Your task to perform on an android device: Add "razer blade" to the cart on newegg.com Image 0: 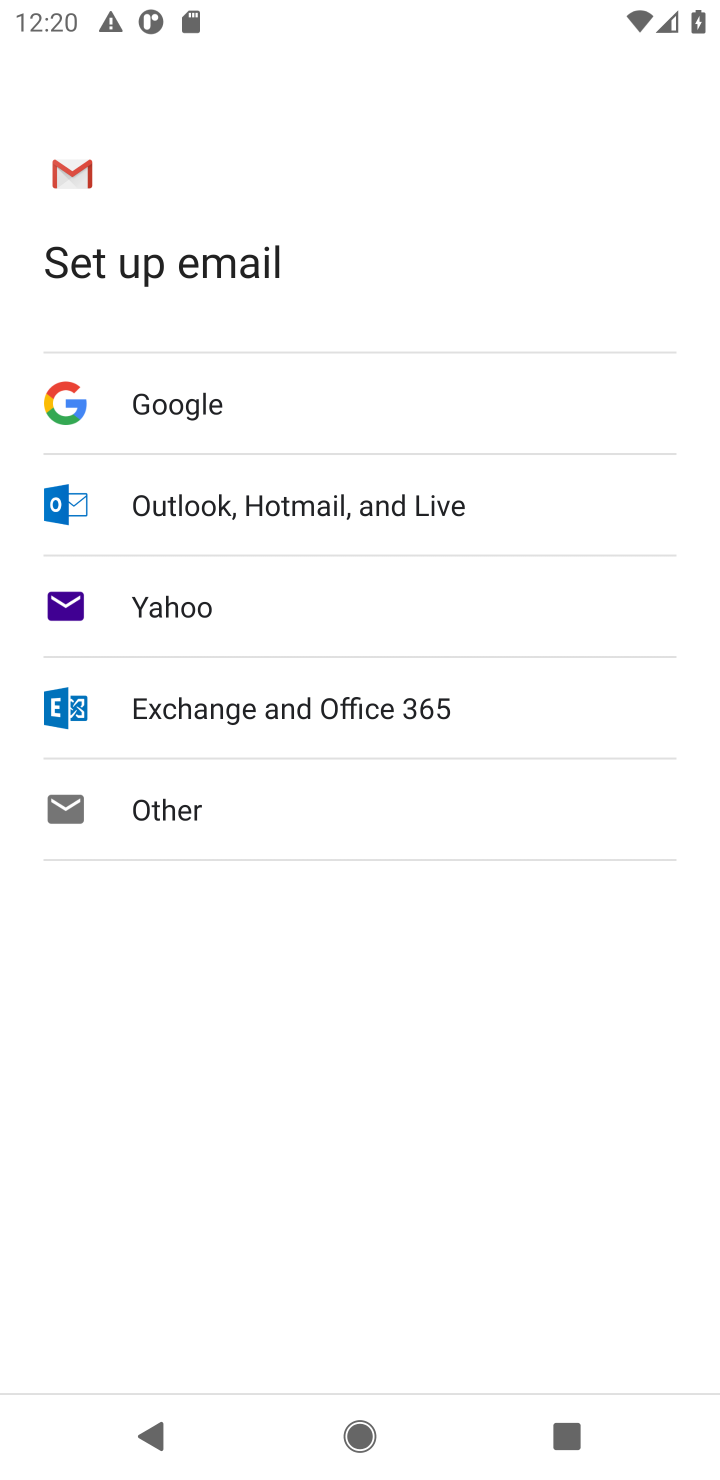
Step 0: press home button
Your task to perform on an android device: Add "razer blade" to the cart on newegg.com Image 1: 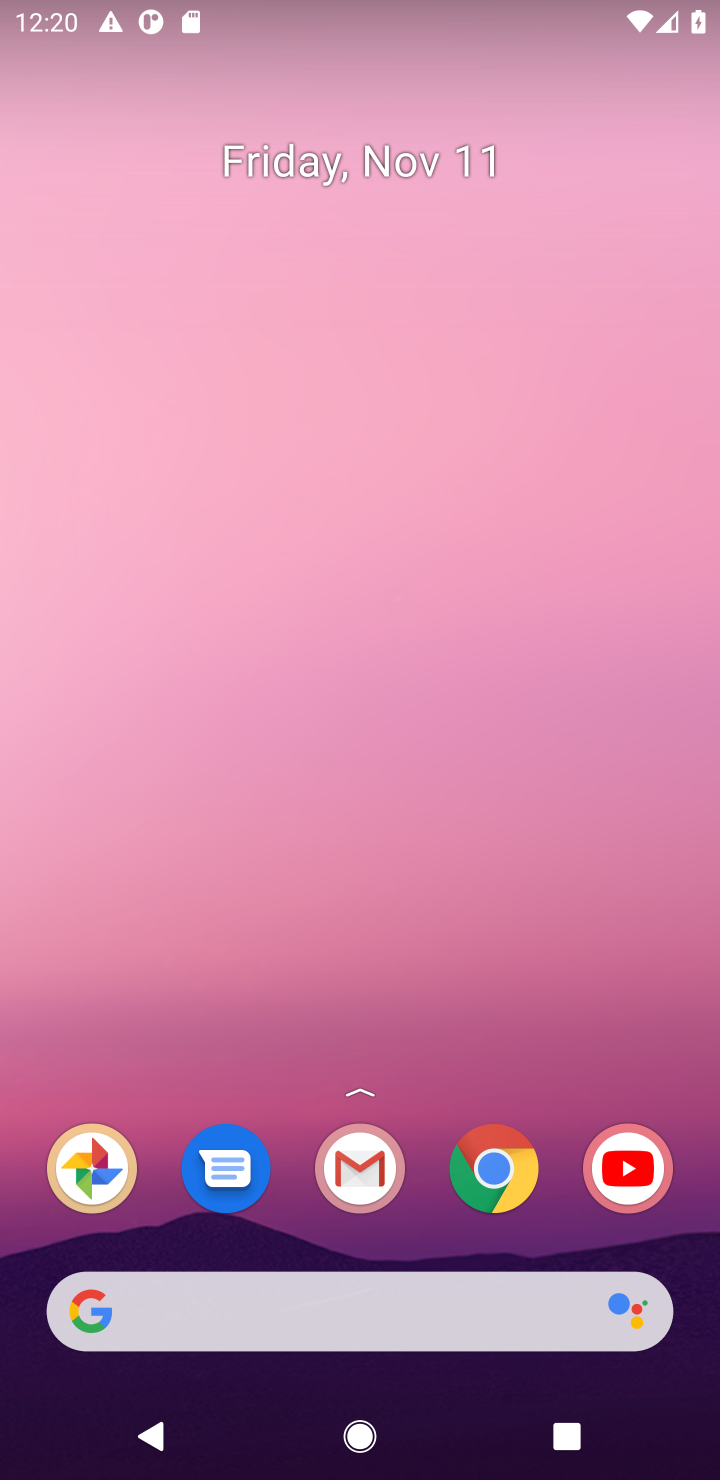
Step 1: click (492, 1166)
Your task to perform on an android device: Add "razer blade" to the cart on newegg.com Image 2: 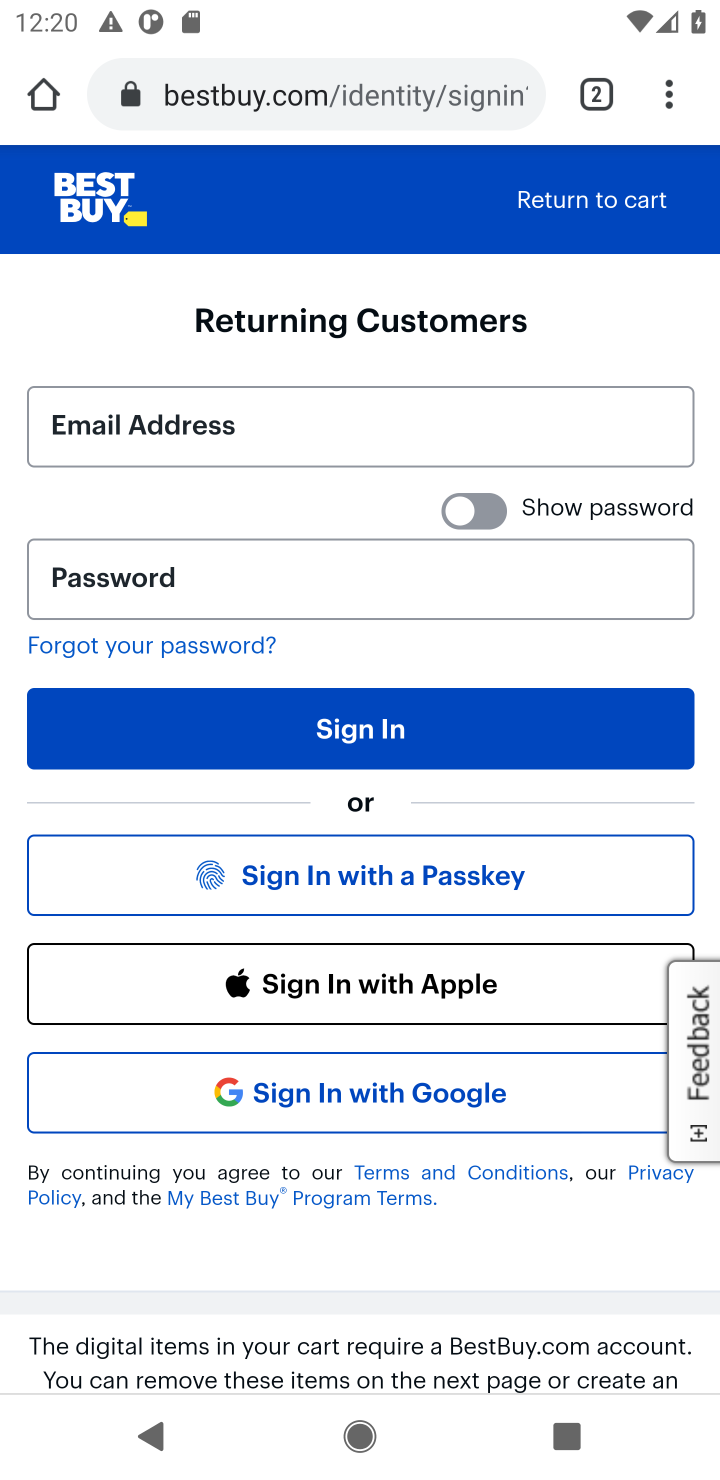
Step 2: click (336, 102)
Your task to perform on an android device: Add "razer blade" to the cart on newegg.com Image 3: 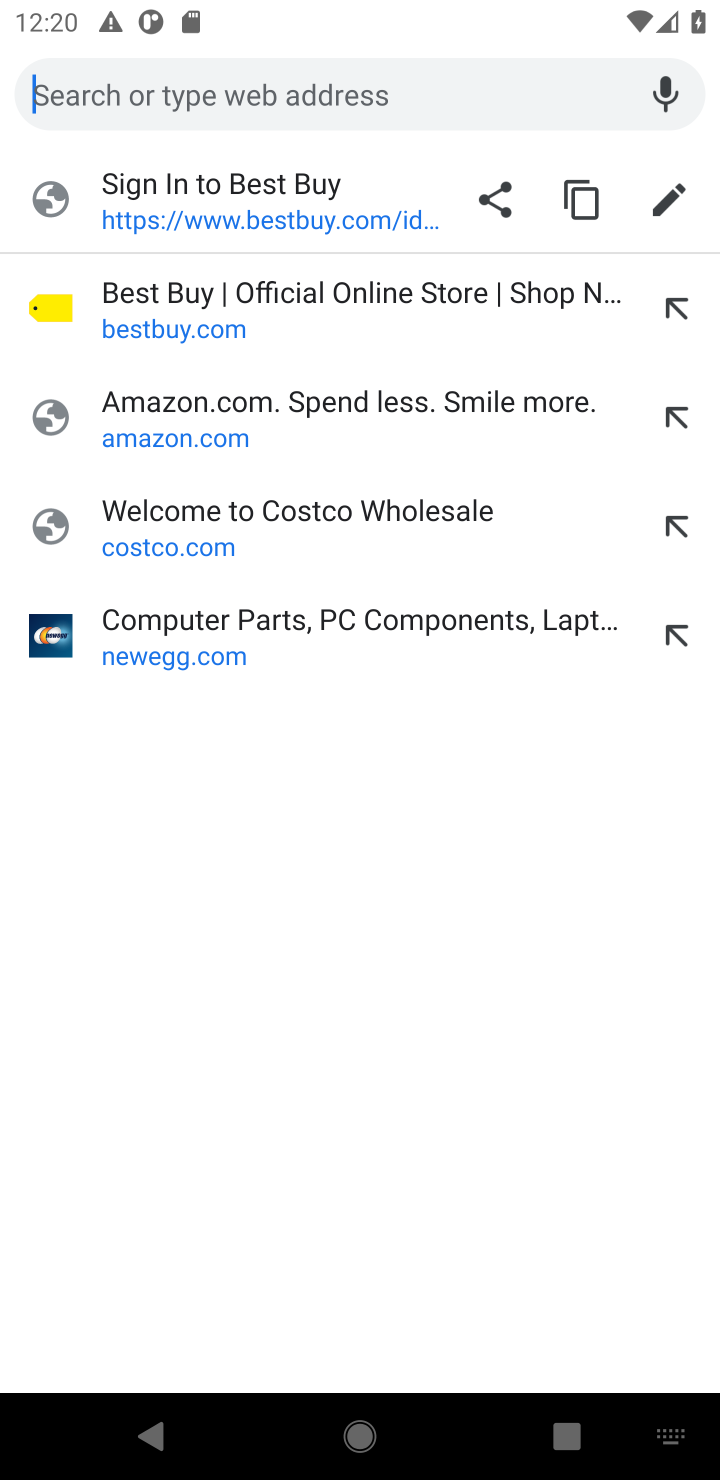
Step 3: click (207, 639)
Your task to perform on an android device: Add "razer blade" to the cart on newegg.com Image 4: 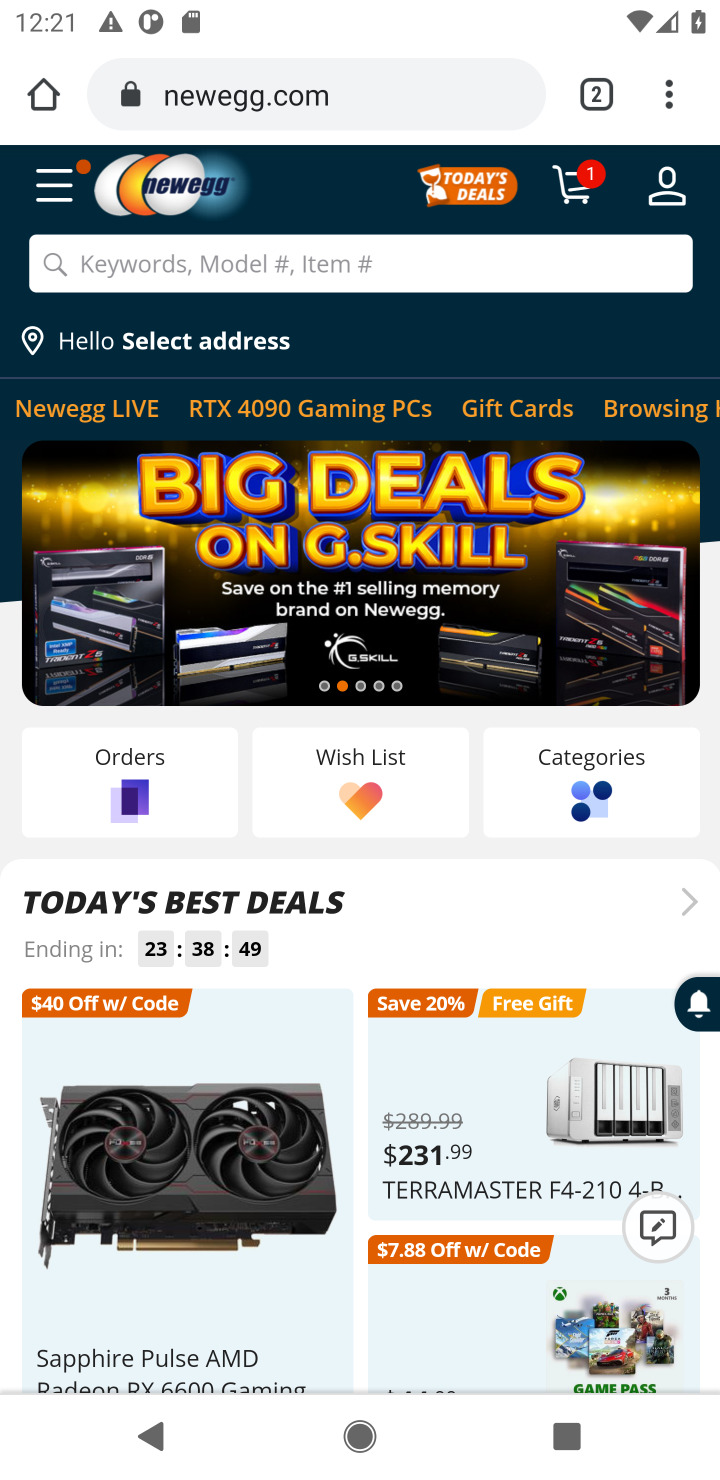
Step 4: click (262, 272)
Your task to perform on an android device: Add "razer blade" to the cart on newegg.com Image 5: 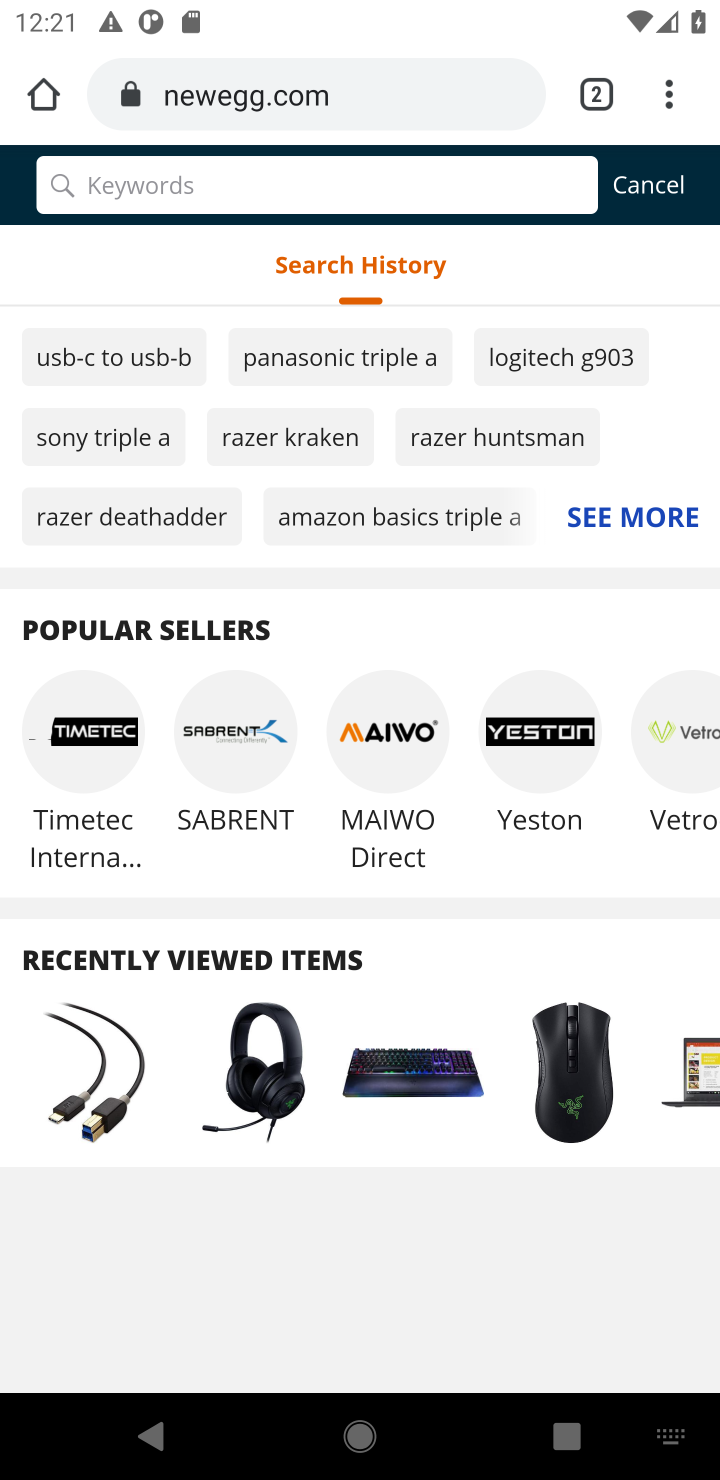
Step 5: type "razer blade"
Your task to perform on an android device: Add "razer blade" to the cart on newegg.com Image 6: 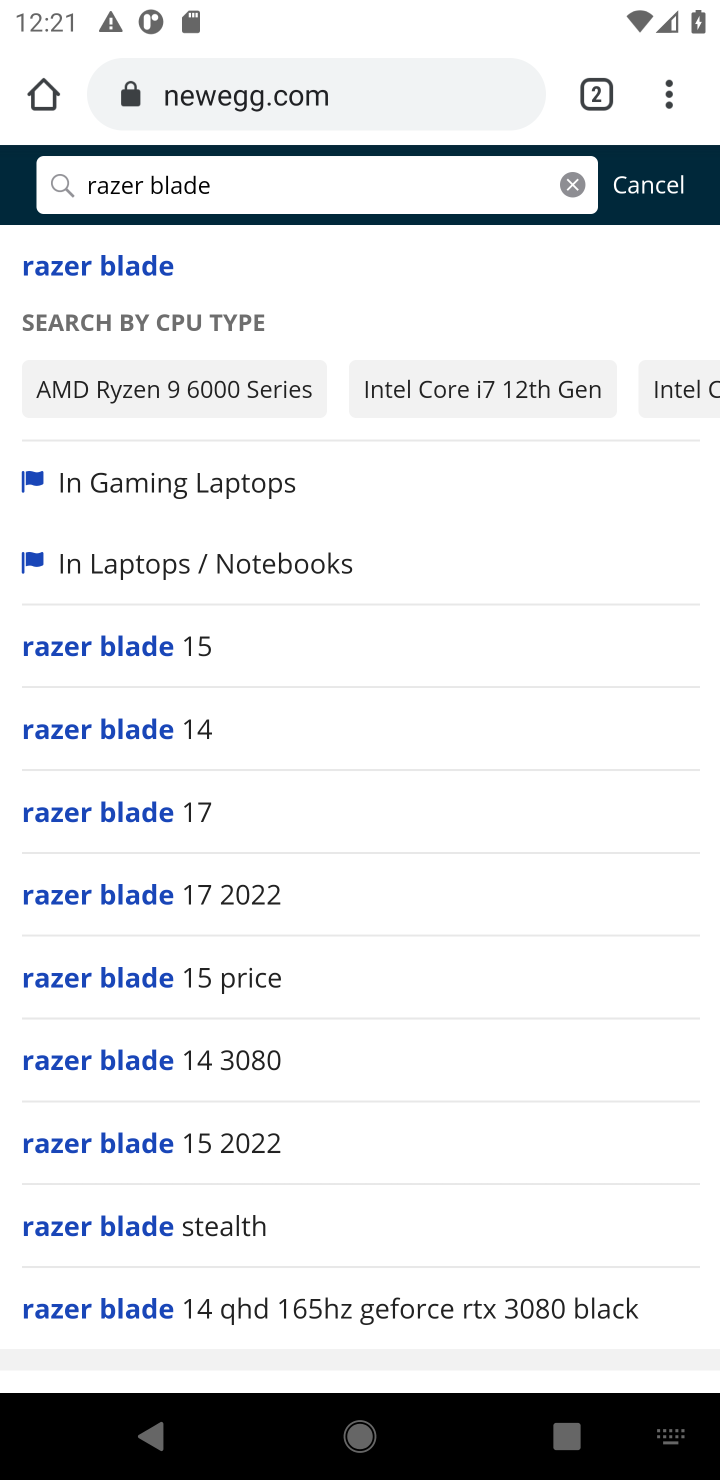
Step 6: click (105, 269)
Your task to perform on an android device: Add "razer blade" to the cart on newegg.com Image 7: 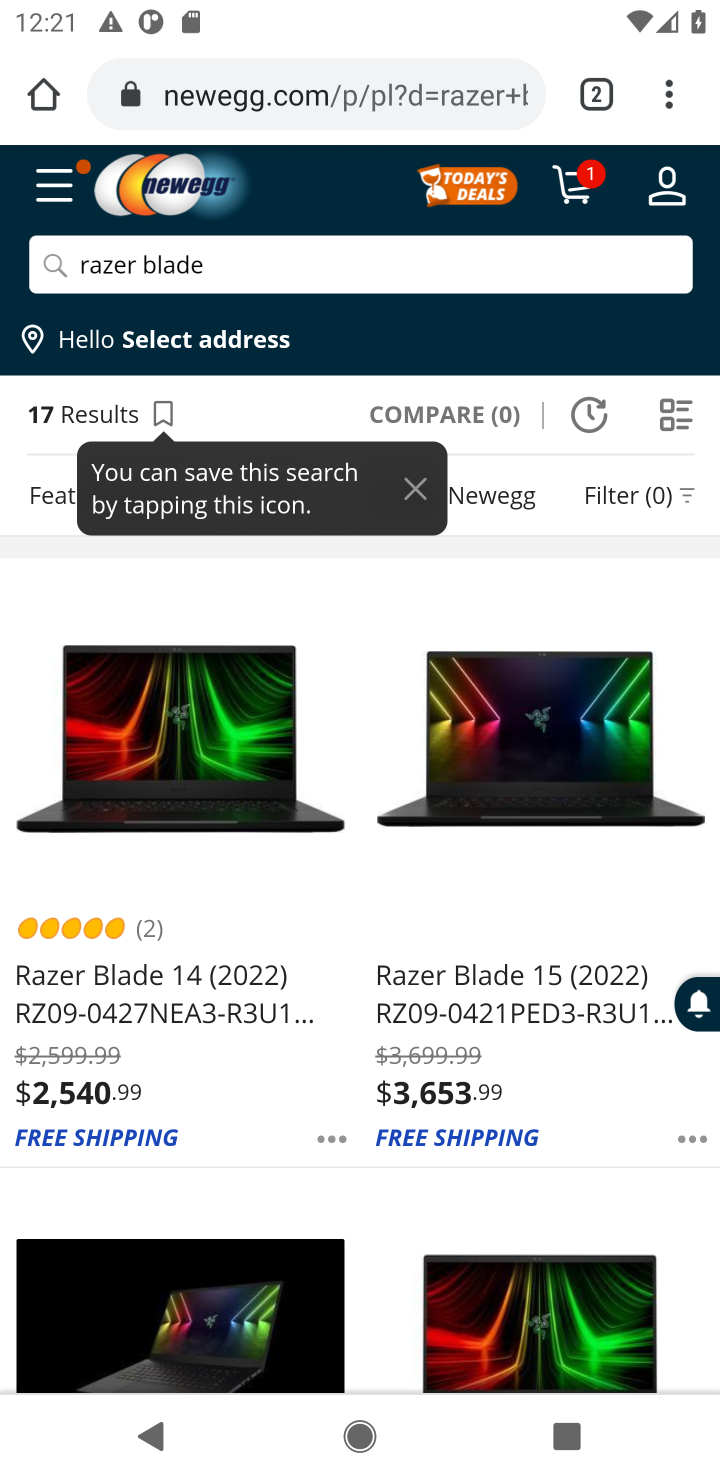
Step 7: click (142, 929)
Your task to perform on an android device: Add "razer blade" to the cart on newegg.com Image 8: 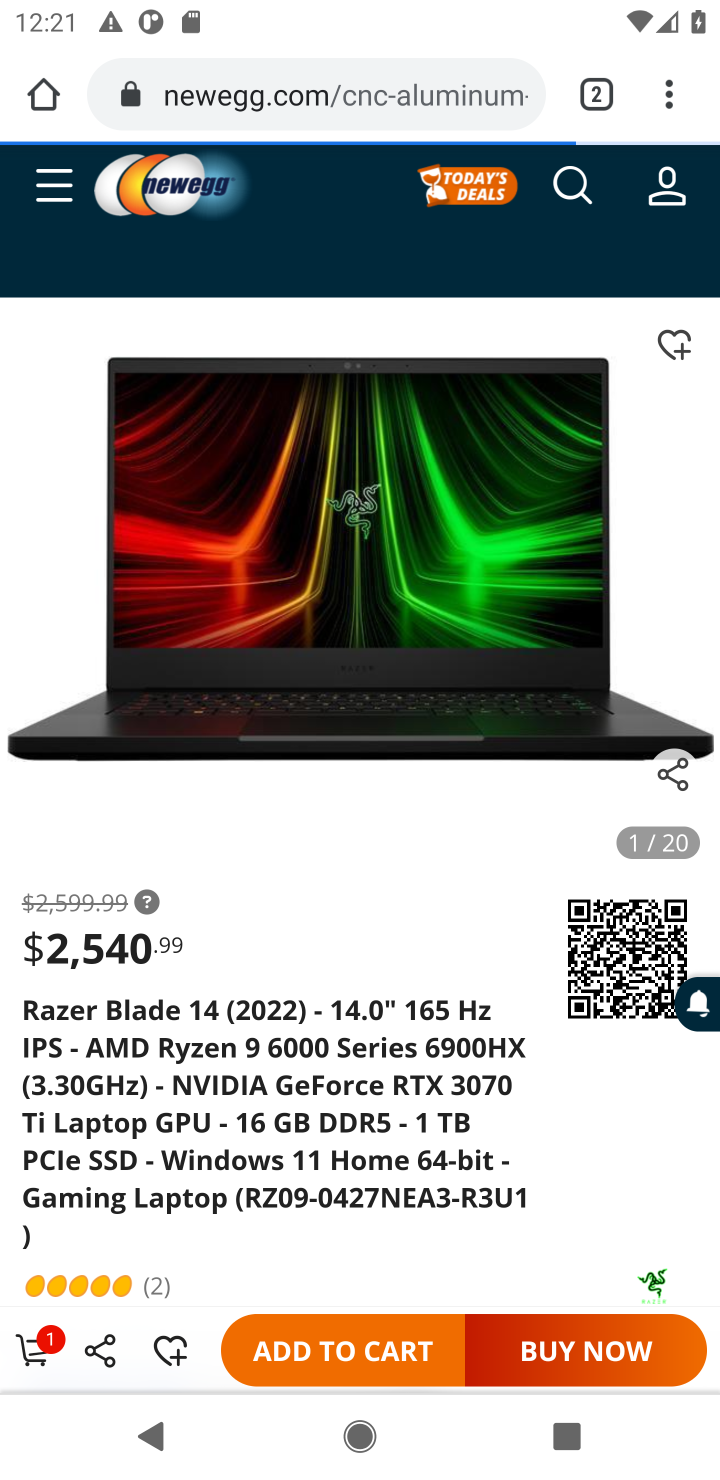
Step 8: click (321, 1348)
Your task to perform on an android device: Add "razer blade" to the cart on newegg.com Image 9: 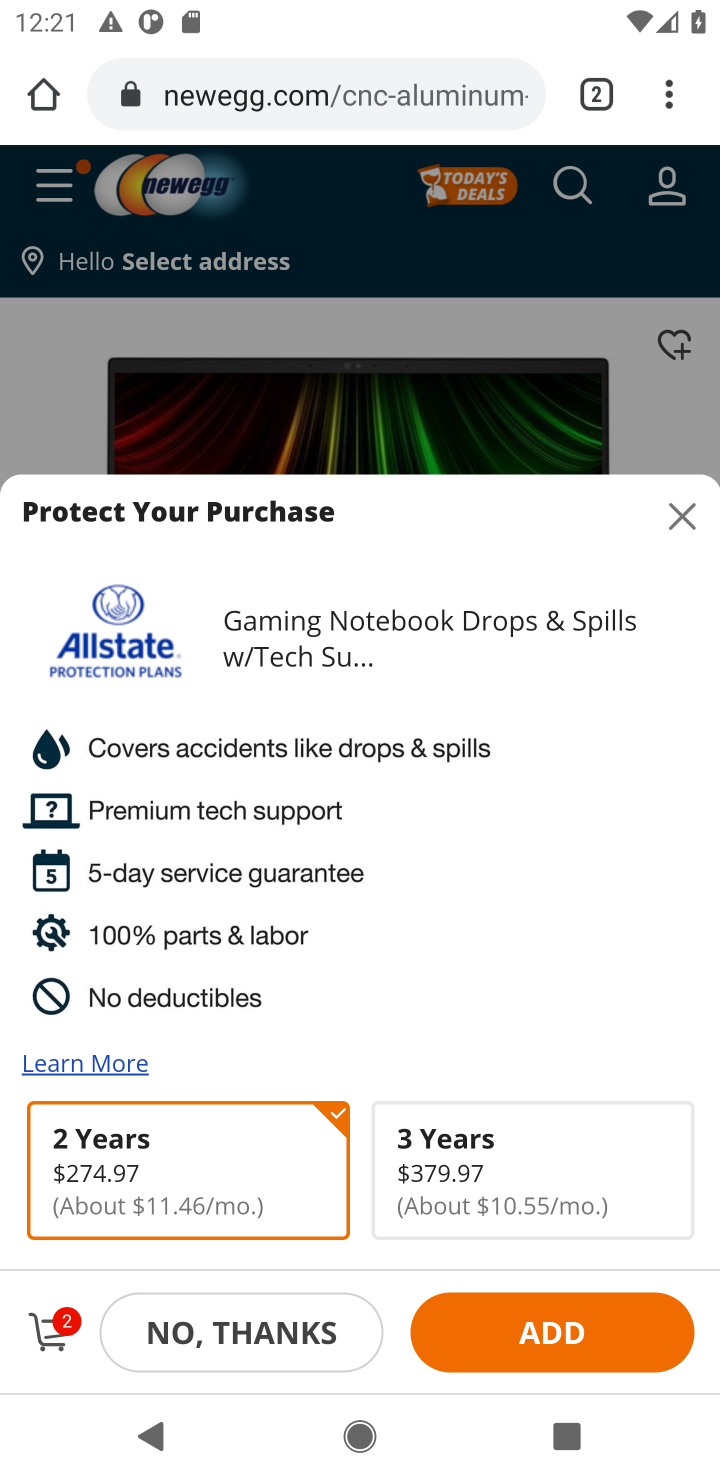
Step 9: task complete